Your task to perform on an android device: allow notifications from all sites in the chrome app Image 0: 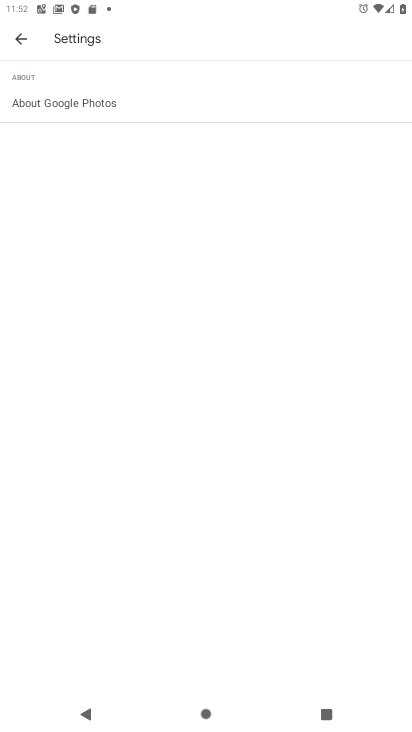
Step 0: press home button
Your task to perform on an android device: allow notifications from all sites in the chrome app Image 1: 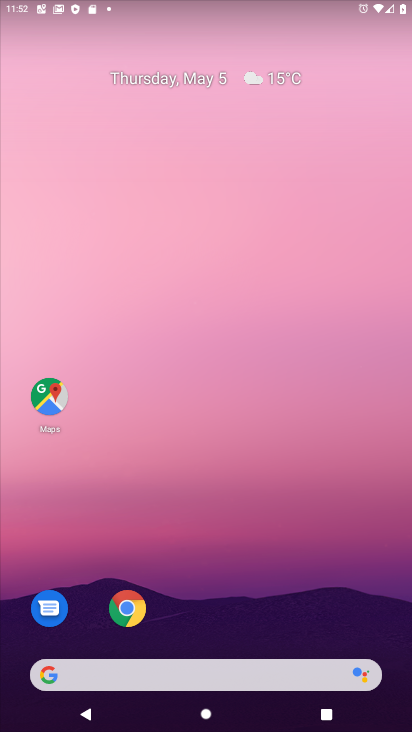
Step 1: click (127, 616)
Your task to perform on an android device: allow notifications from all sites in the chrome app Image 2: 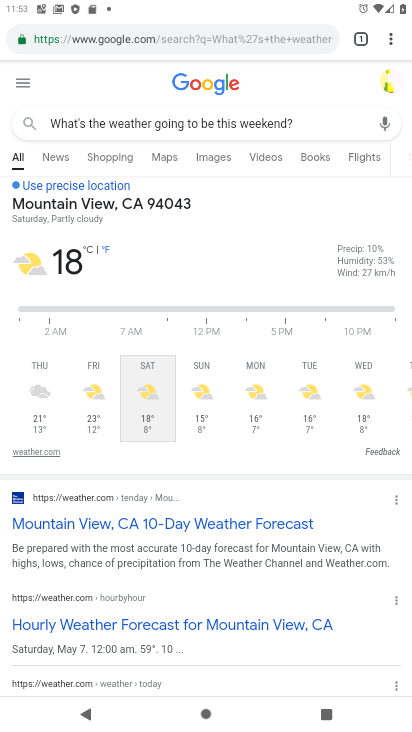
Step 2: drag from (393, 41) to (311, 440)
Your task to perform on an android device: allow notifications from all sites in the chrome app Image 3: 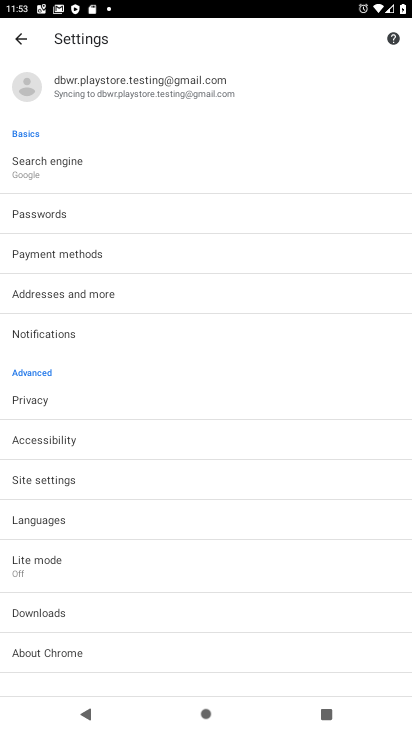
Step 3: click (57, 475)
Your task to perform on an android device: allow notifications from all sites in the chrome app Image 4: 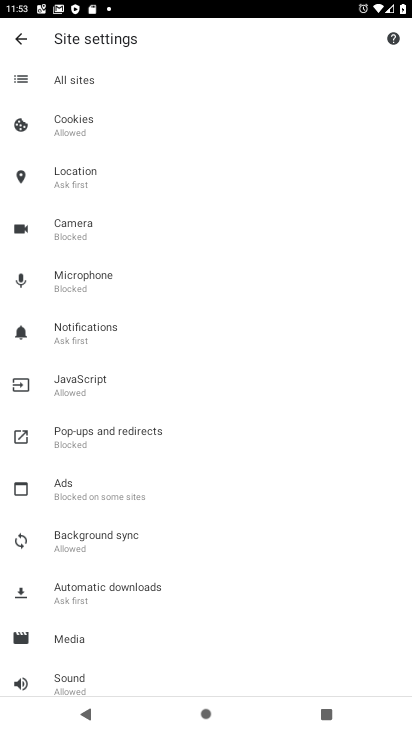
Step 4: click (131, 328)
Your task to perform on an android device: allow notifications from all sites in the chrome app Image 5: 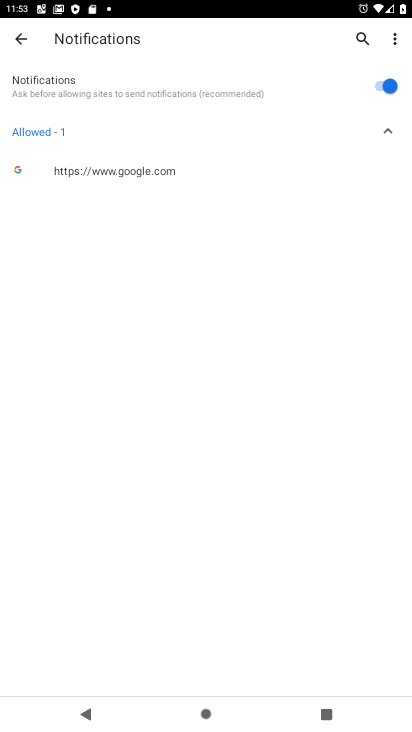
Step 5: task complete